Your task to perform on an android device: turn on javascript in the chrome app Image 0: 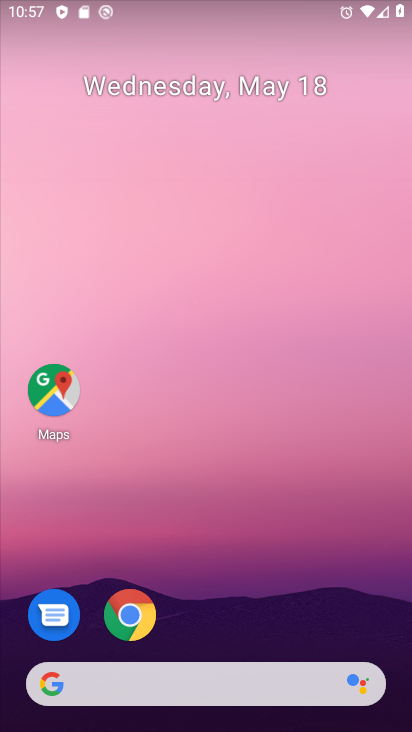
Step 0: click (120, 626)
Your task to perform on an android device: turn on javascript in the chrome app Image 1: 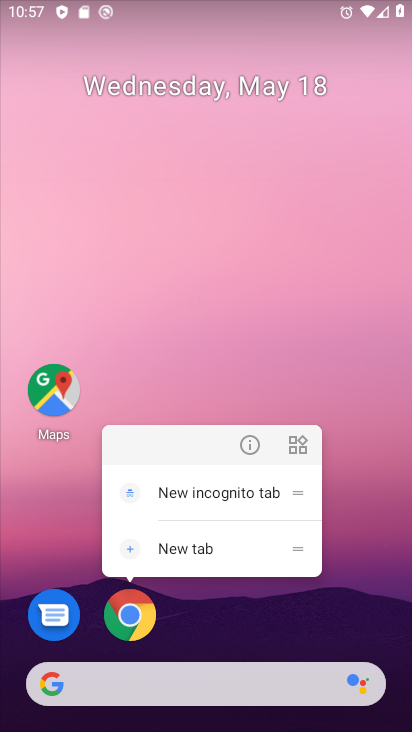
Step 1: drag from (149, 637) to (212, 419)
Your task to perform on an android device: turn on javascript in the chrome app Image 2: 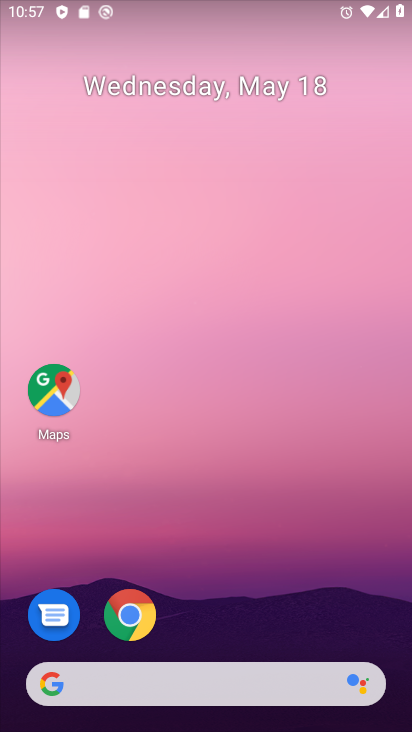
Step 2: click (116, 610)
Your task to perform on an android device: turn on javascript in the chrome app Image 3: 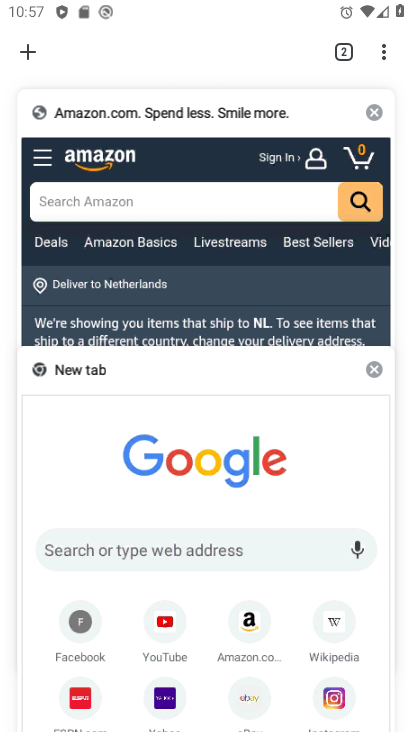
Step 3: click (381, 58)
Your task to perform on an android device: turn on javascript in the chrome app Image 4: 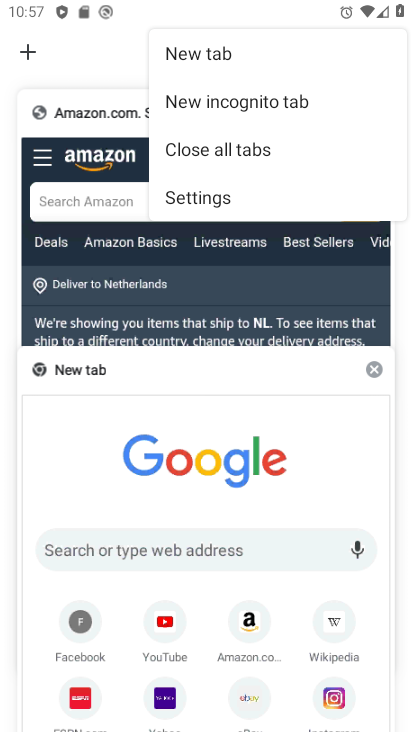
Step 4: click (230, 198)
Your task to perform on an android device: turn on javascript in the chrome app Image 5: 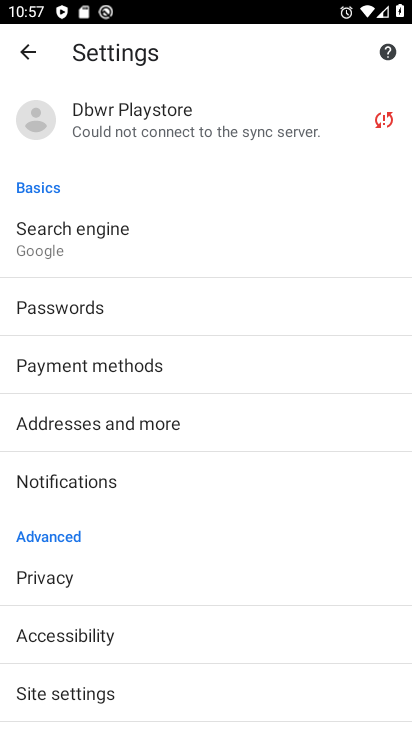
Step 5: click (71, 696)
Your task to perform on an android device: turn on javascript in the chrome app Image 6: 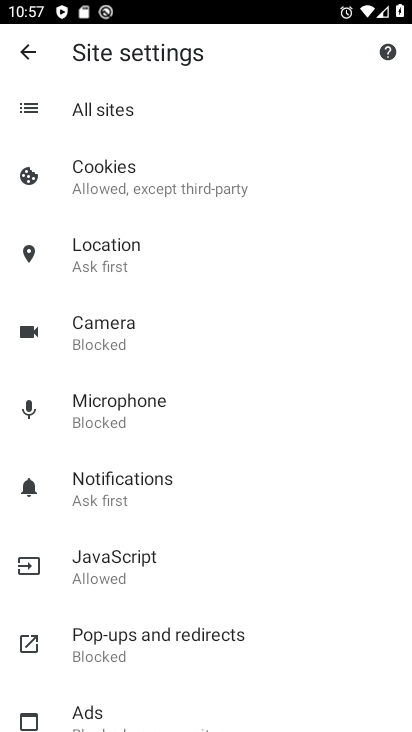
Step 6: click (142, 563)
Your task to perform on an android device: turn on javascript in the chrome app Image 7: 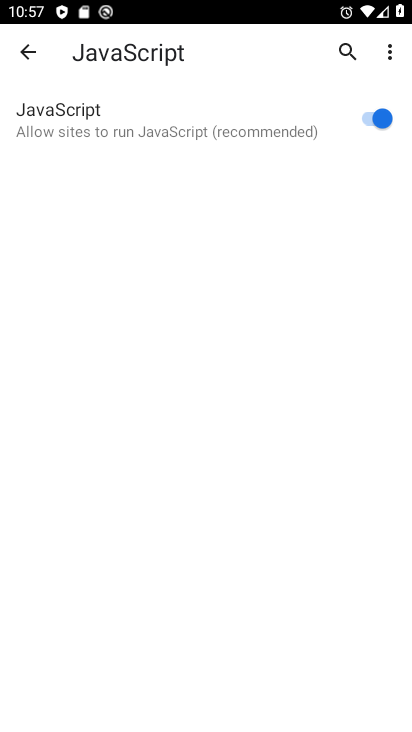
Step 7: task complete